Your task to perform on an android device: open app "Viber Messenger" (install if not already installed) and enter user name: "blameless@icloud.com" and password: "Yoknapatawpha" Image 0: 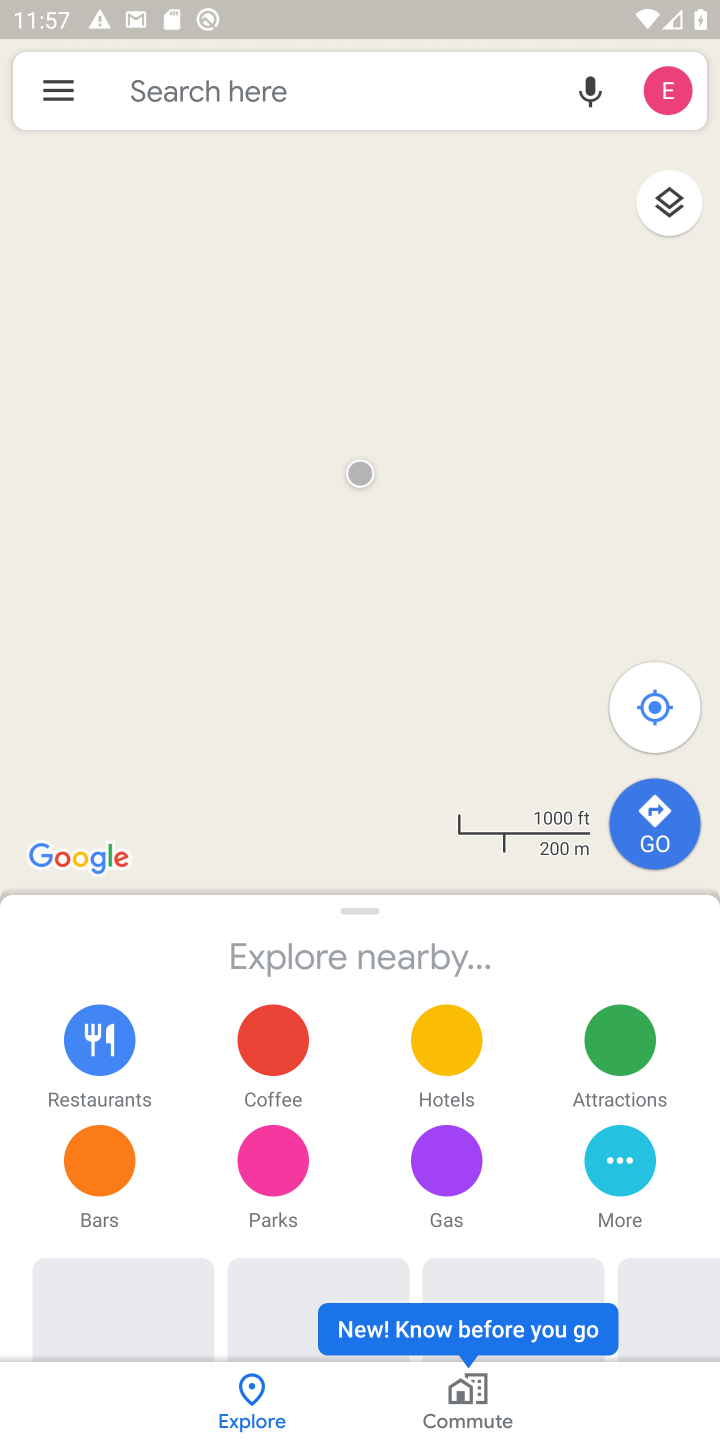
Step 0: press home button
Your task to perform on an android device: open app "Viber Messenger" (install if not already installed) and enter user name: "blameless@icloud.com" and password: "Yoknapatawpha" Image 1: 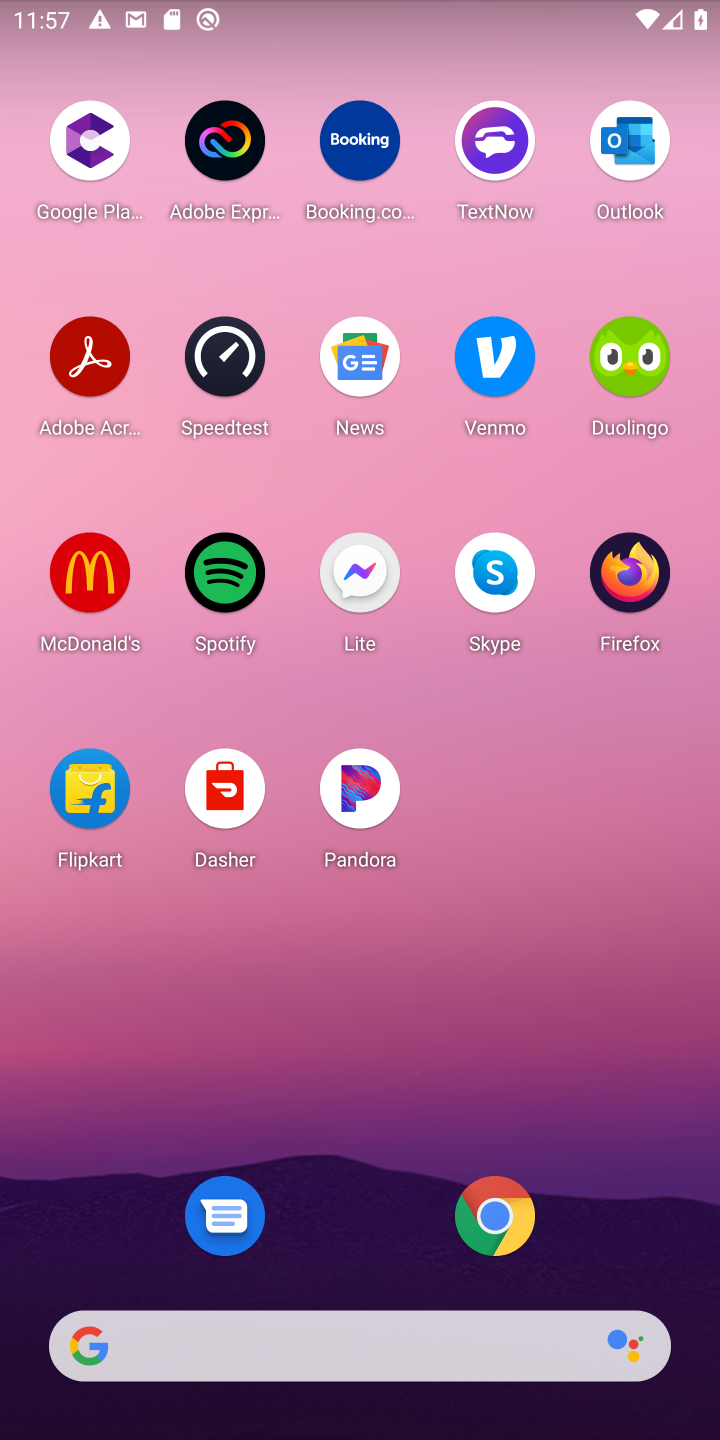
Step 1: drag from (227, 1282) to (429, 133)
Your task to perform on an android device: open app "Viber Messenger" (install if not already installed) and enter user name: "blameless@icloud.com" and password: "Yoknapatawpha" Image 2: 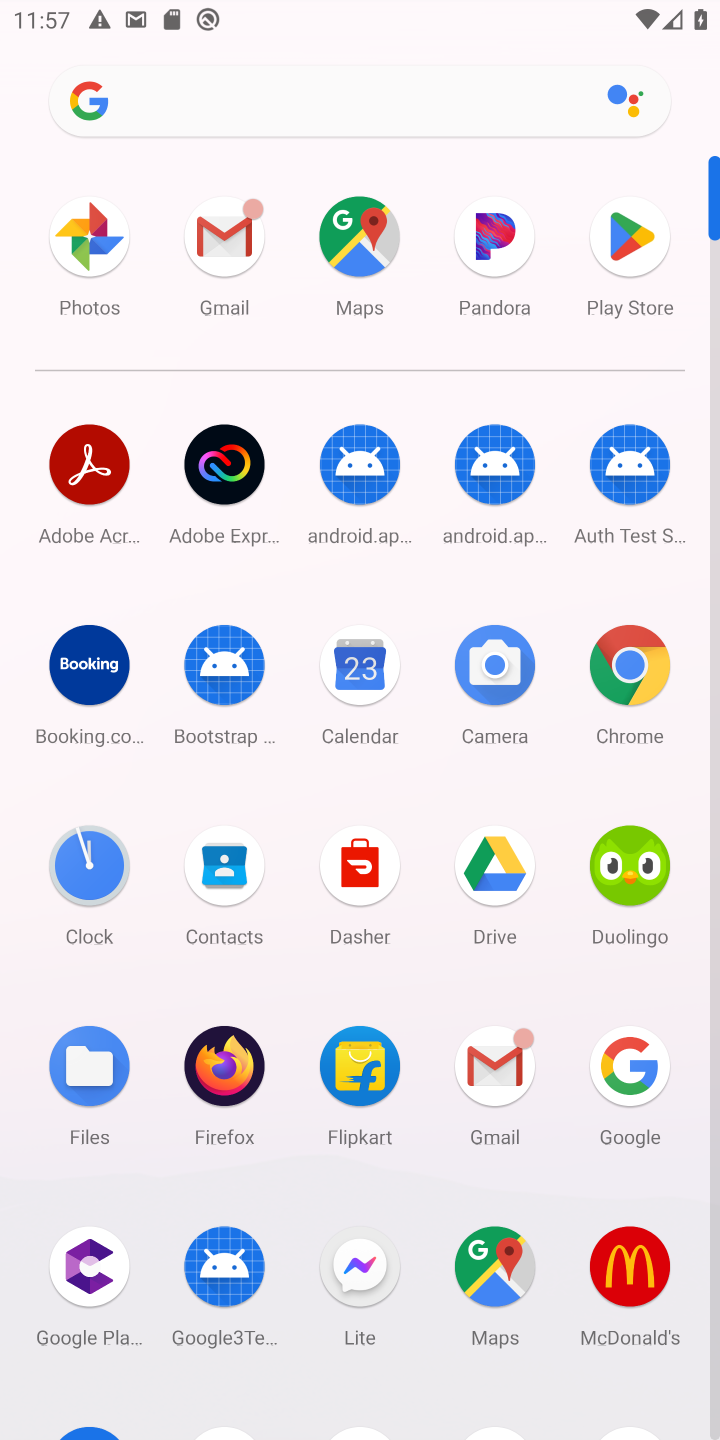
Step 2: click (632, 235)
Your task to perform on an android device: open app "Viber Messenger" (install if not already installed) and enter user name: "blameless@icloud.com" and password: "Yoknapatawpha" Image 3: 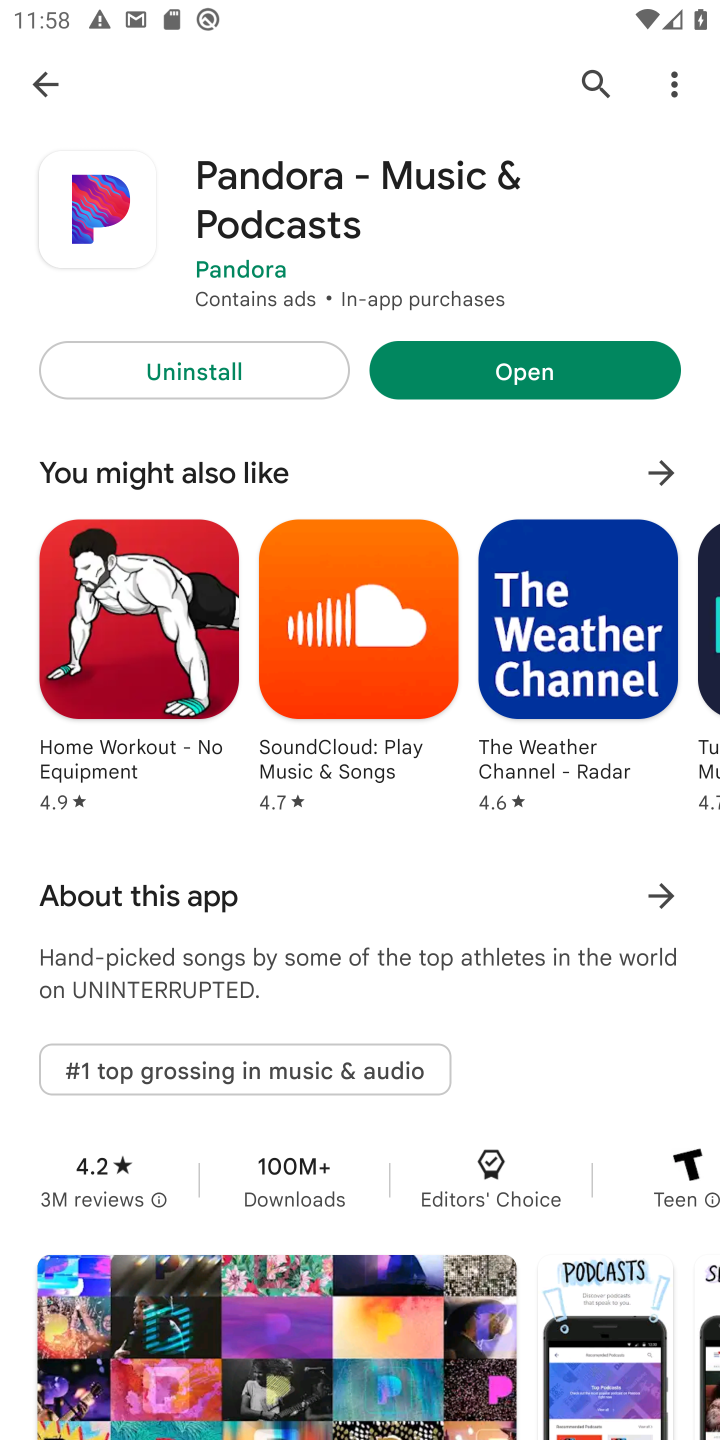
Step 3: press back button
Your task to perform on an android device: open app "Viber Messenger" (install if not already installed) and enter user name: "blameless@icloud.com" and password: "Yoknapatawpha" Image 4: 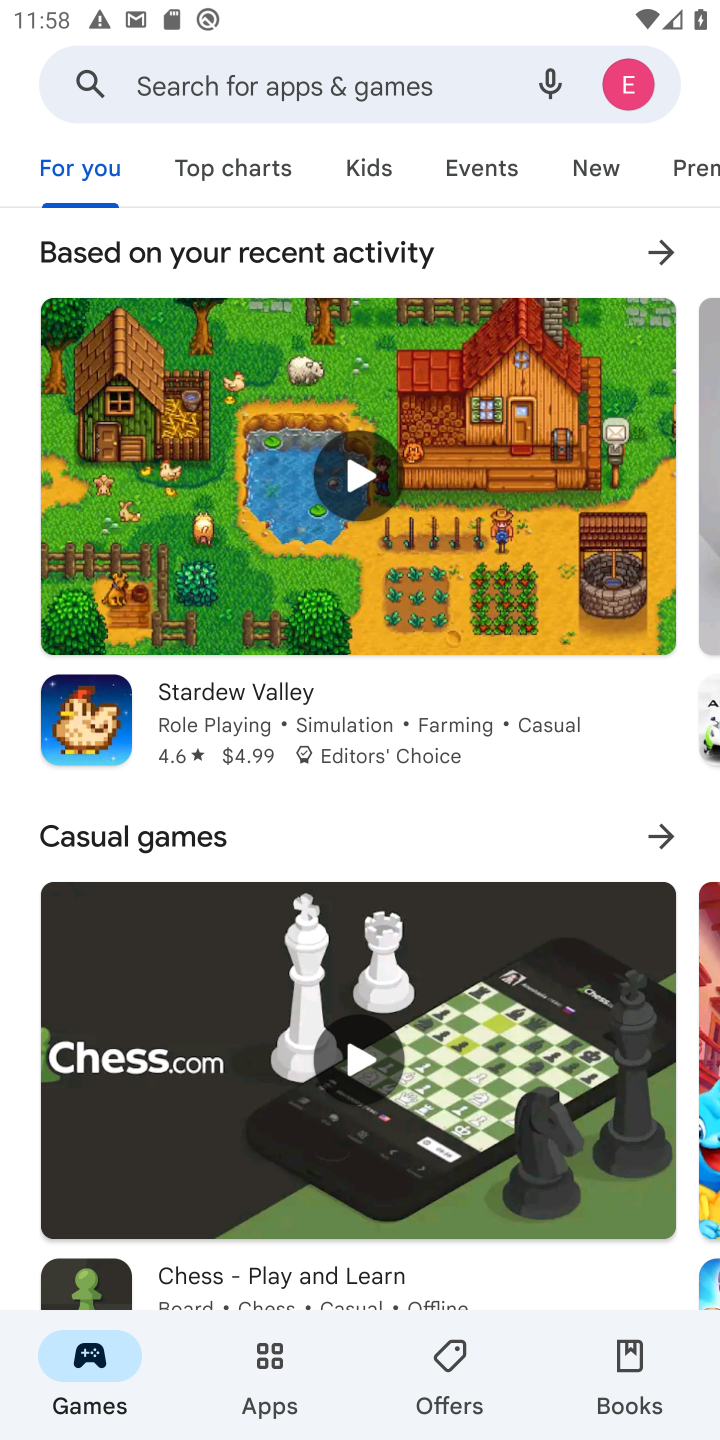
Step 4: click (390, 86)
Your task to perform on an android device: open app "Viber Messenger" (install if not already installed) and enter user name: "blameless@icloud.com" and password: "Yoknapatawpha" Image 5: 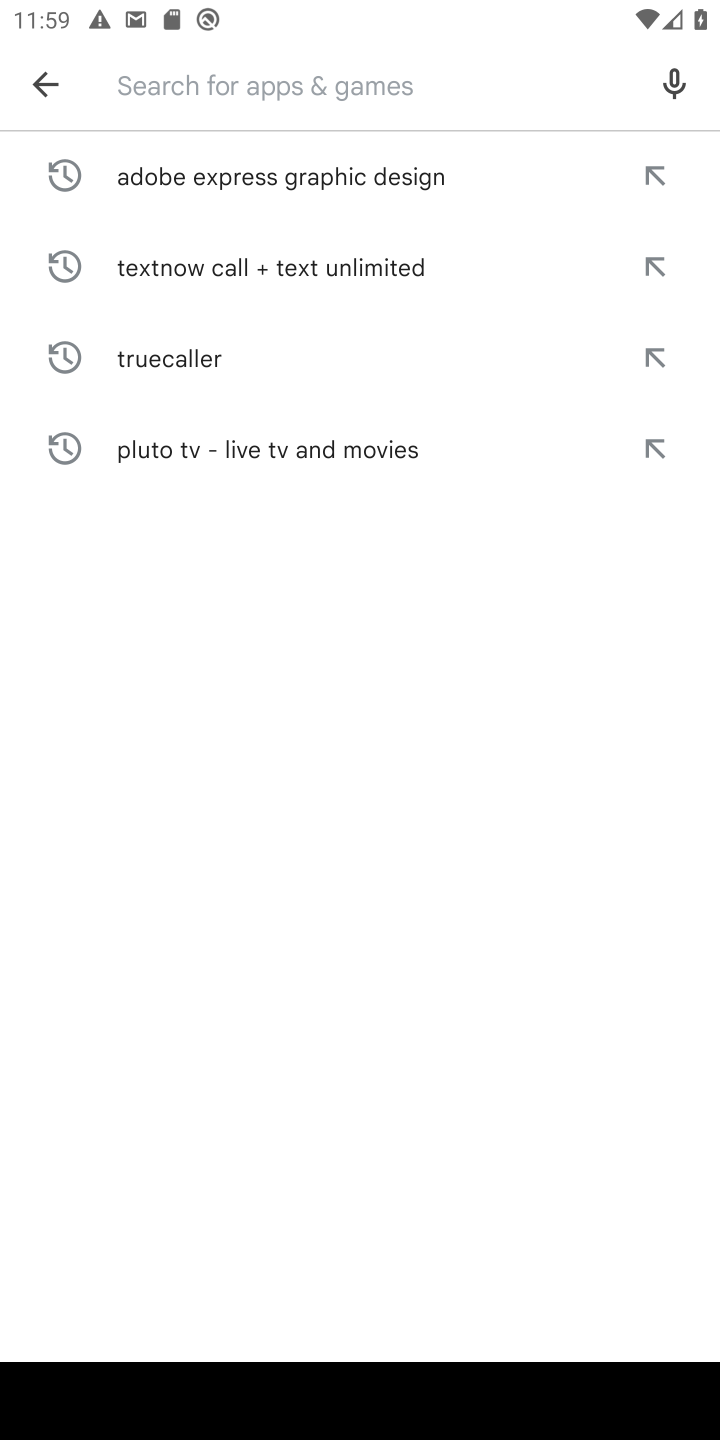
Step 5: type "Viber Messenger"
Your task to perform on an android device: open app "Viber Messenger" (install if not already installed) and enter user name: "blameless@icloud.com" and password: "Yoknapatawpha" Image 6: 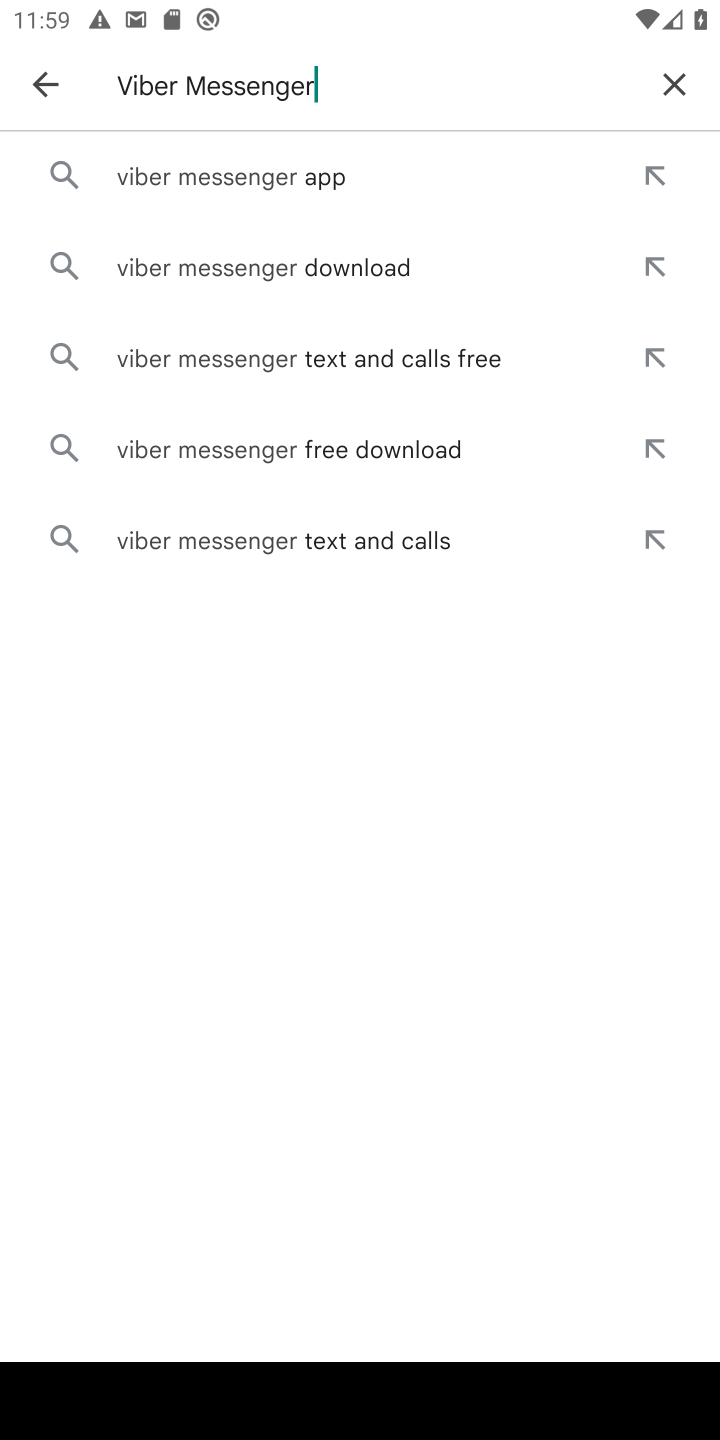
Step 6: click (281, 187)
Your task to perform on an android device: open app "Viber Messenger" (install if not already installed) and enter user name: "blameless@icloud.com" and password: "Yoknapatawpha" Image 7: 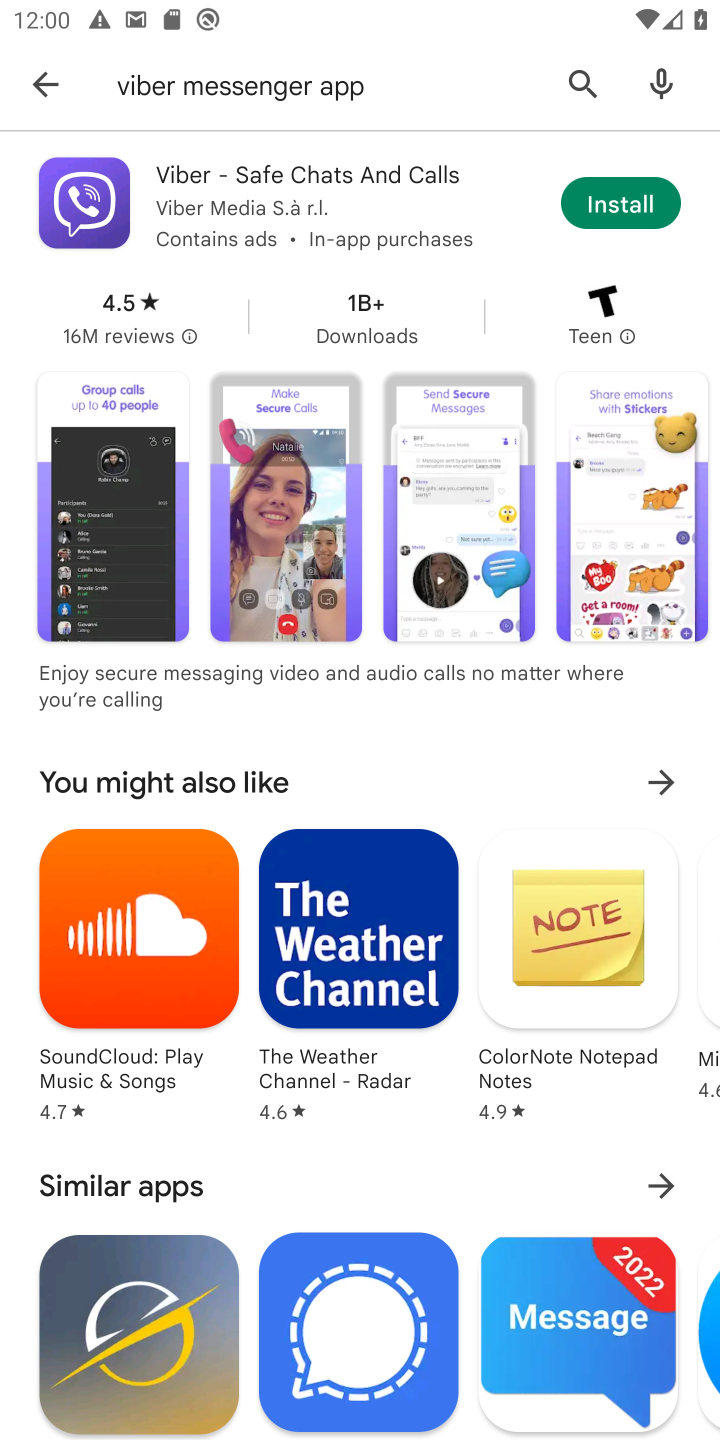
Step 7: click (627, 207)
Your task to perform on an android device: open app "Viber Messenger" (install if not already installed) and enter user name: "blameless@icloud.com" and password: "Yoknapatawpha" Image 8: 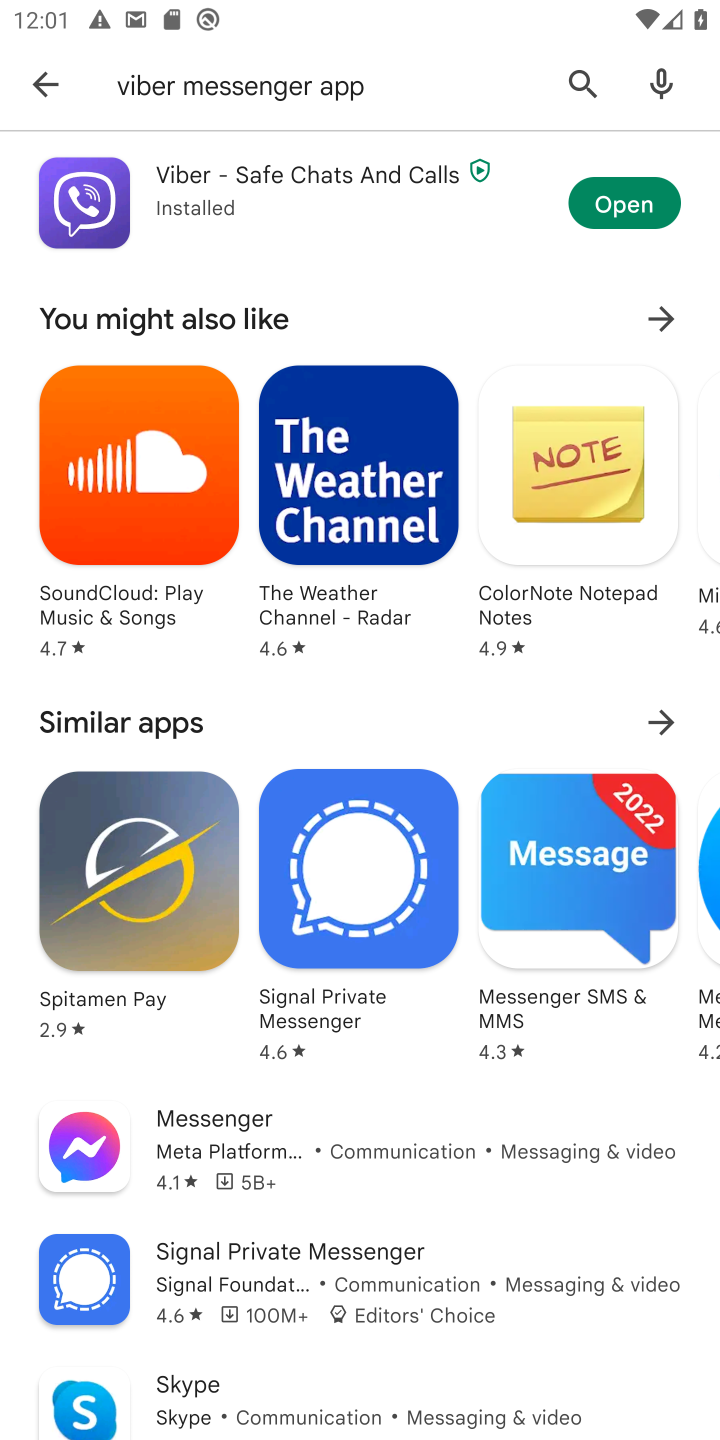
Step 8: click (622, 205)
Your task to perform on an android device: open app "Viber Messenger" (install if not already installed) and enter user name: "blameless@icloud.com" and password: "Yoknapatawpha" Image 9: 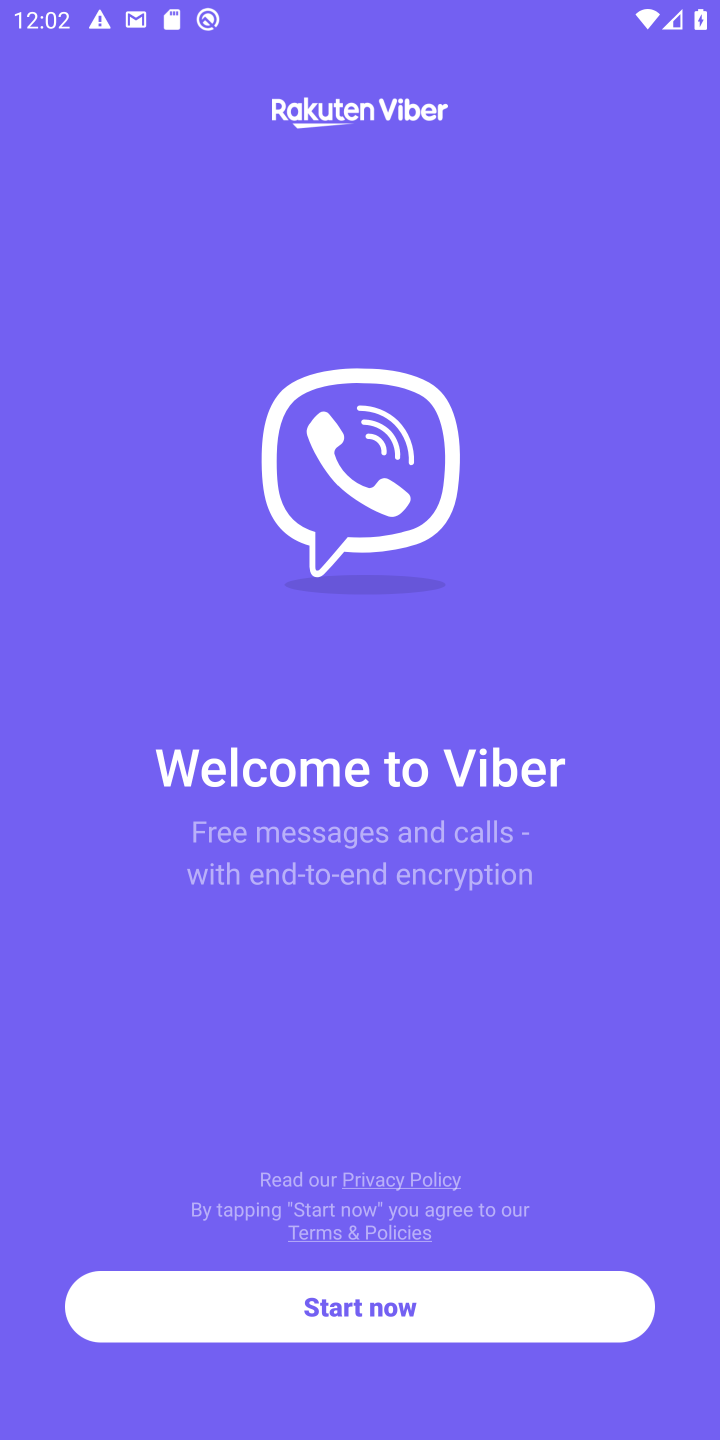
Step 9: click (369, 1304)
Your task to perform on an android device: open app "Viber Messenger" (install if not already installed) and enter user name: "blameless@icloud.com" and password: "Yoknapatawpha" Image 10: 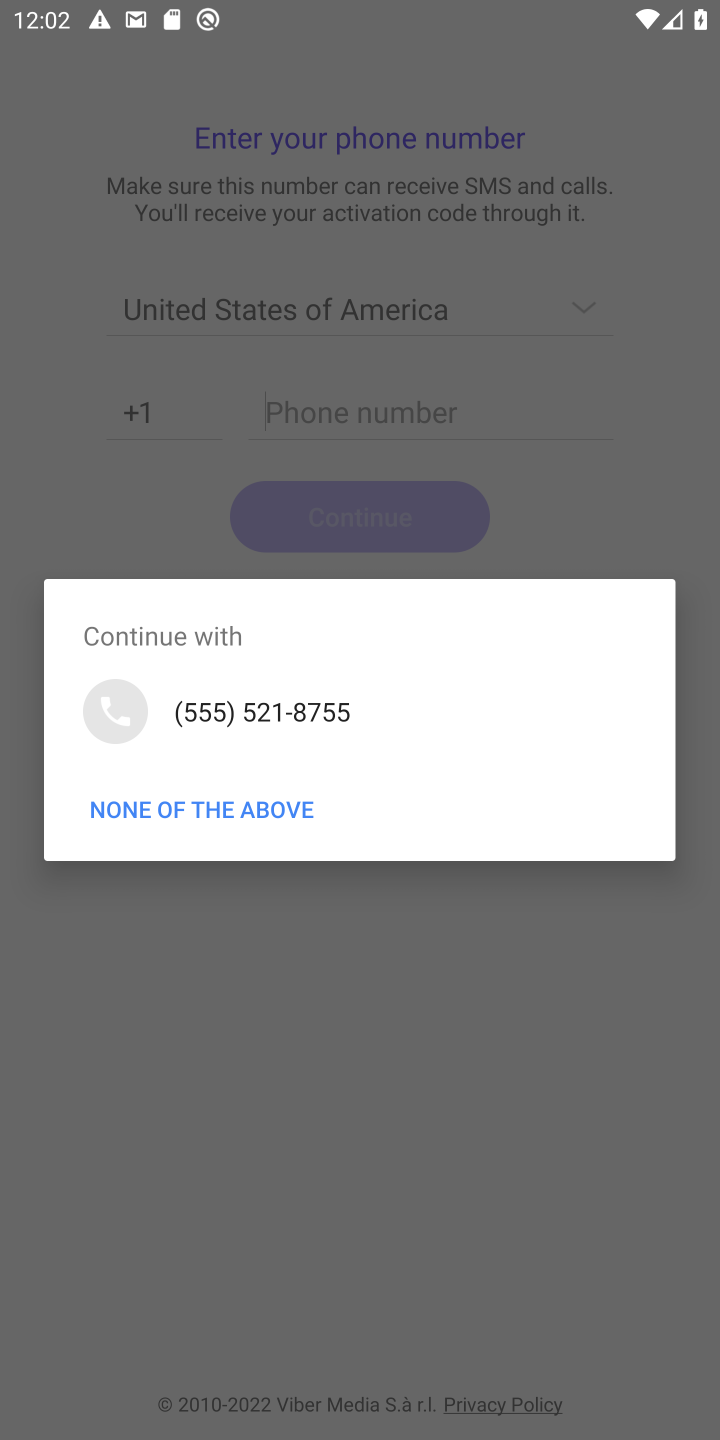
Step 10: click (137, 809)
Your task to perform on an android device: open app "Viber Messenger" (install if not already installed) and enter user name: "blameless@icloud.com" and password: "Yoknapatawpha" Image 11: 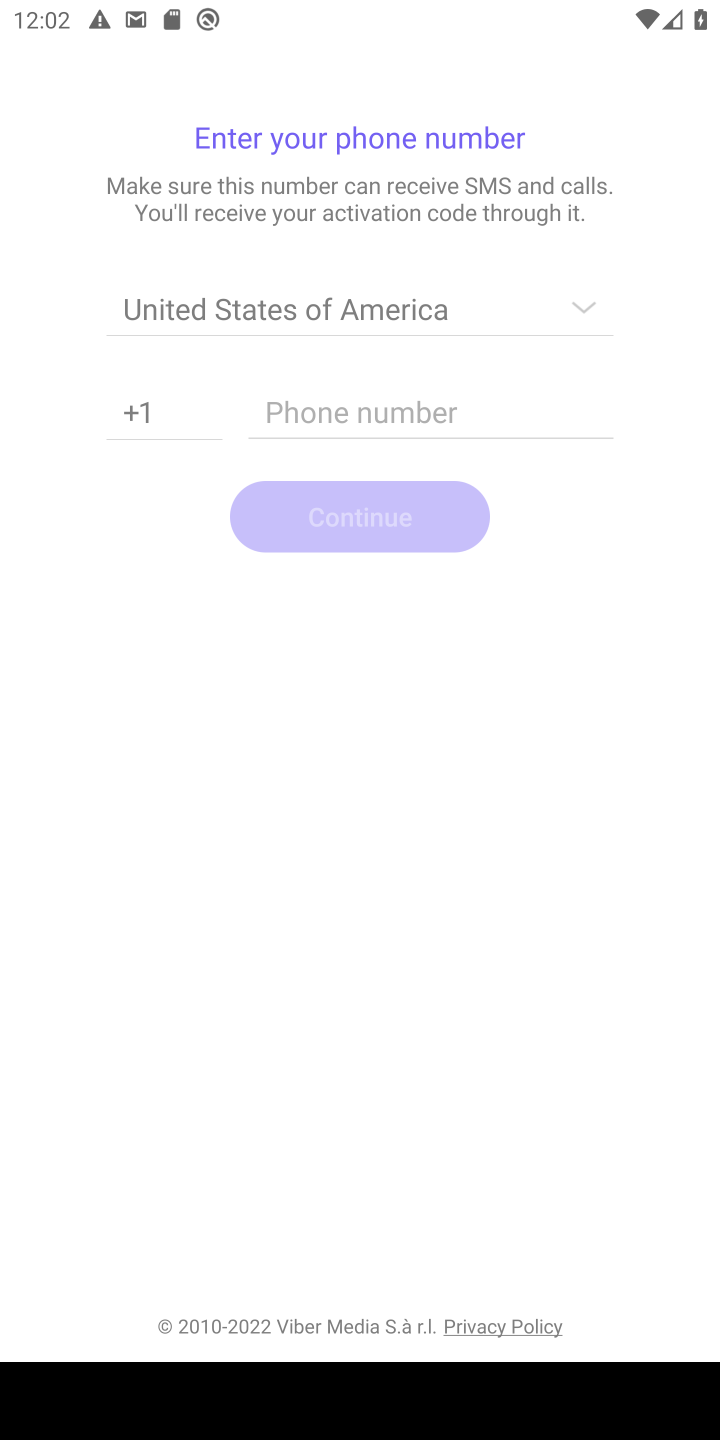
Step 11: task complete